Your task to perform on an android device: turn off notifications in google photos Image 0: 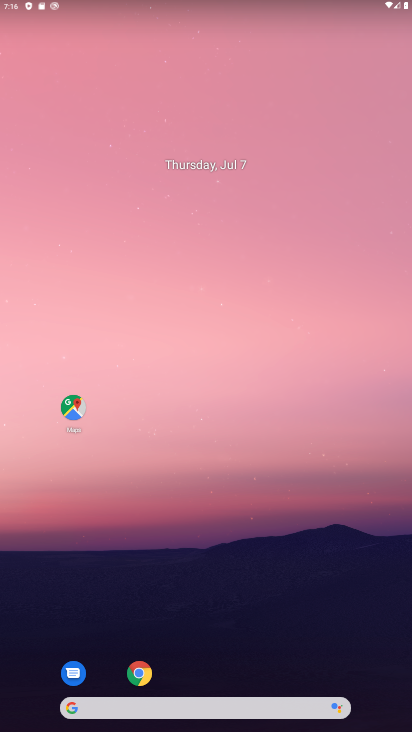
Step 0: drag from (221, 601) to (209, 151)
Your task to perform on an android device: turn off notifications in google photos Image 1: 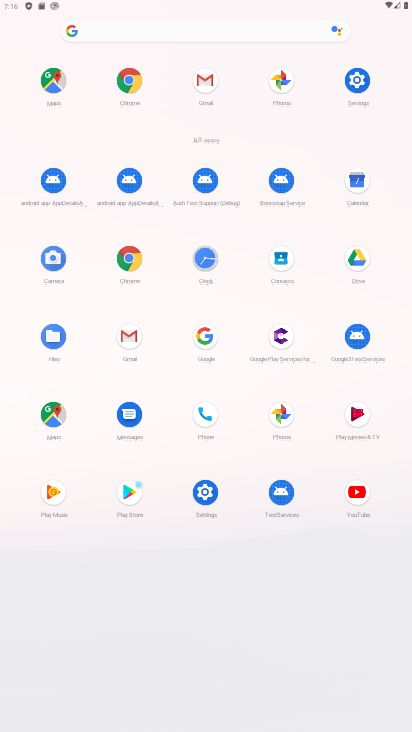
Step 1: click (280, 413)
Your task to perform on an android device: turn off notifications in google photos Image 2: 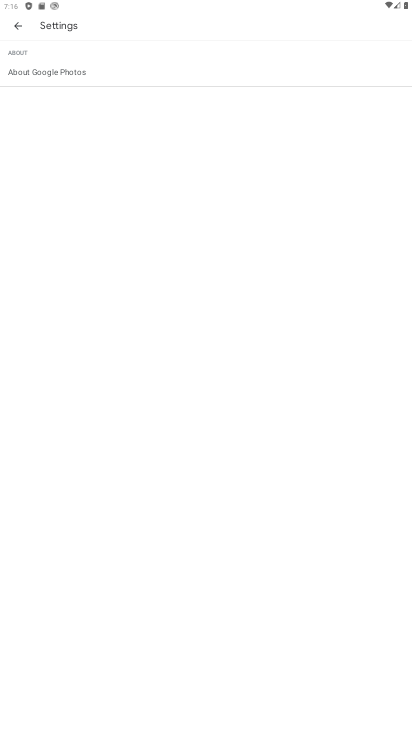
Step 2: press back button
Your task to perform on an android device: turn off notifications in google photos Image 3: 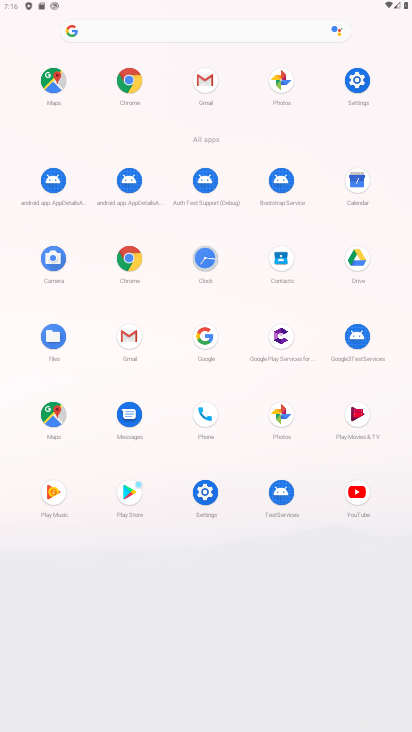
Step 3: click (283, 415)
Your task to perform on an android device: turn off notifications in google photos Image 4: 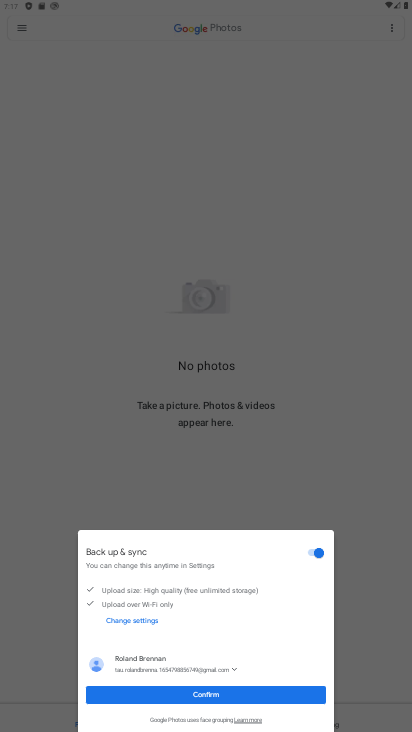
Step 4: click (172, 695)
Your task to perform on an android device: turn off notifications in google photos Image 5: 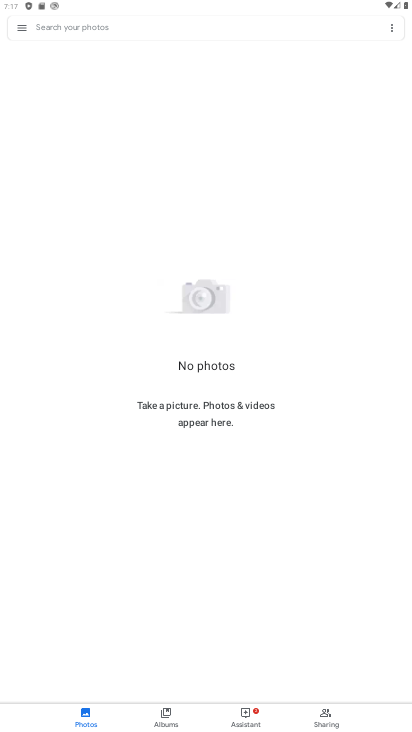
Step 5: click (18, 27)
Your task to perform on an android device: turn off notifications in google photos Image 6: 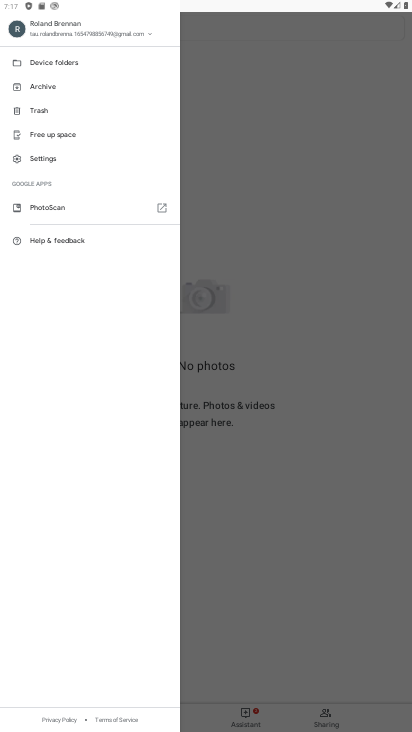
Step 6: click (42, 155)
Your task to perform on an android device: turn off notifications in google photos Image 7: 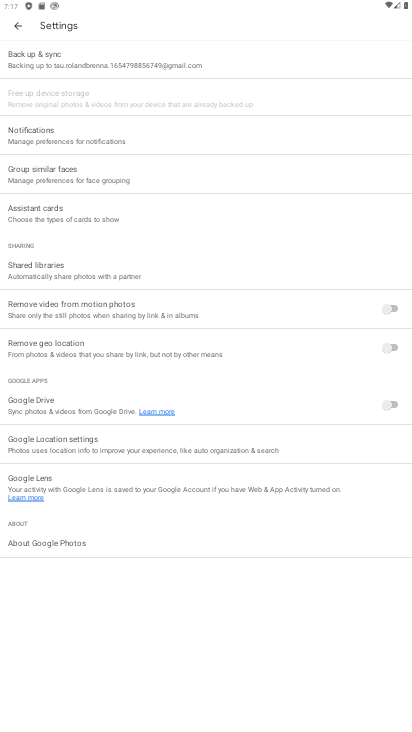
Step 7: click (65, 143)
Your task to perform on an android device: turn off notifications in google photos Image 8: 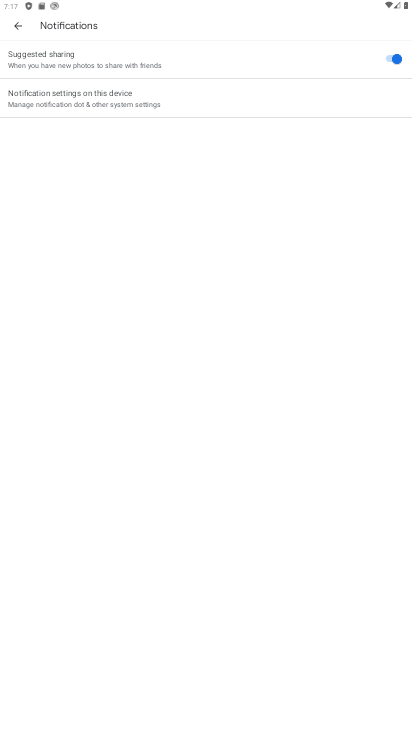
Step 8: click (82, 96)
Your task to perform on an android device: turn off notifications in google photos Image 9: 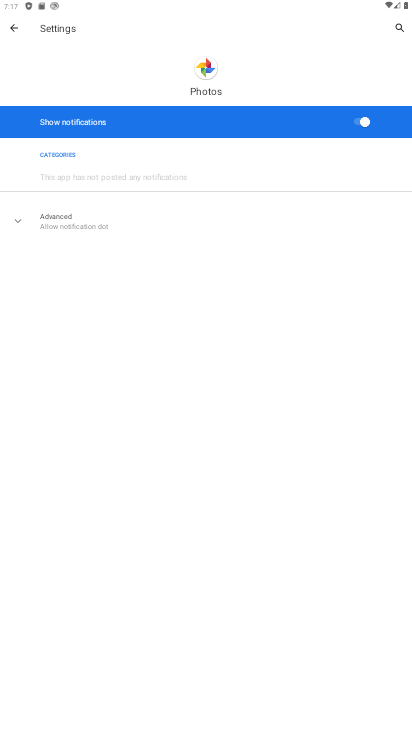
Step 9: click (352, 129)
Your task to perform on an android device: turn off notifications in google photos Image 10: 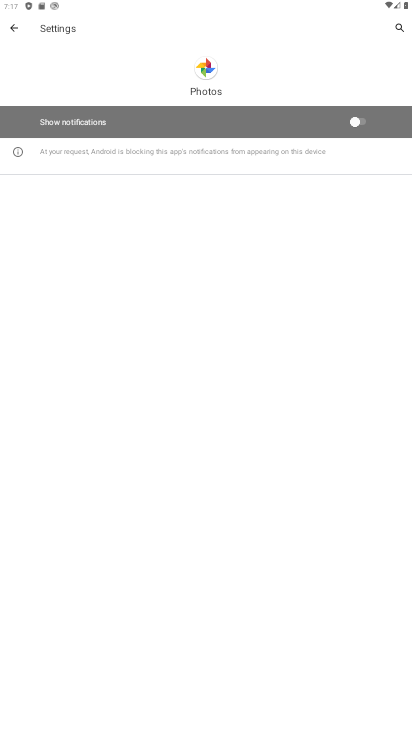
Step 10: task complete